Your task to perform on an android device: Go to notification settings Image 0: 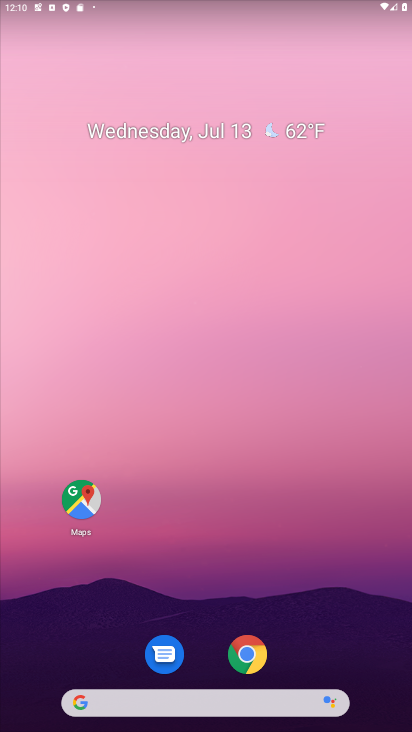
Step 0: drag from (241, 696) to (283, 213)
Your task to perform on an android device: Go to notification settings Image 1: 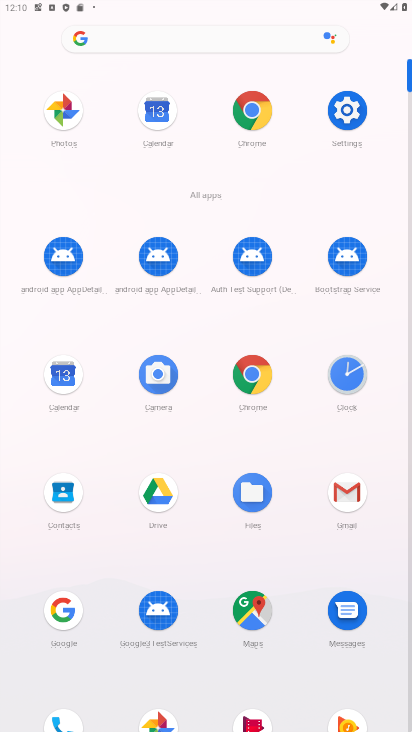
Step 1: click (350, 102)
Your task to perform on an android device: Go to notification settings Image 2: 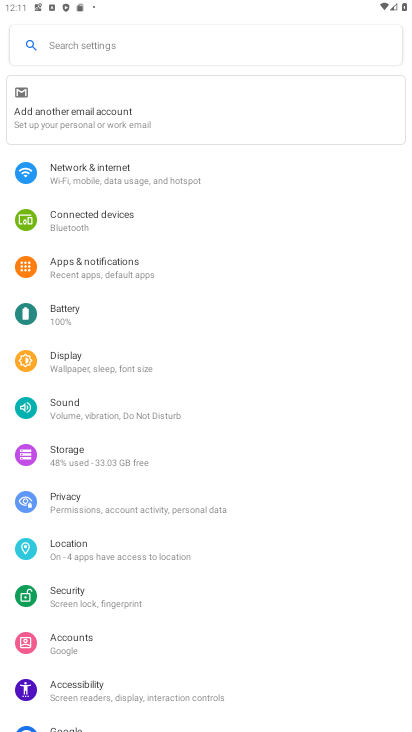
Step 2: click (84, 267)
Your task to perform on an android device: Go to notification settings Image 3: 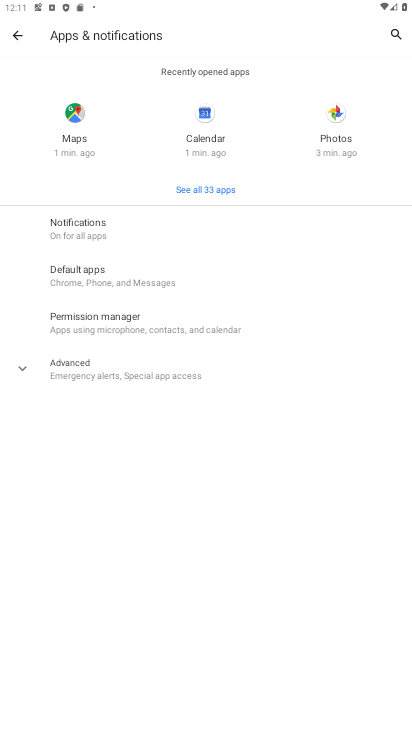
Step 3: task complete